Your task to perform on an android device: Go to Yahoo.com Image 0: 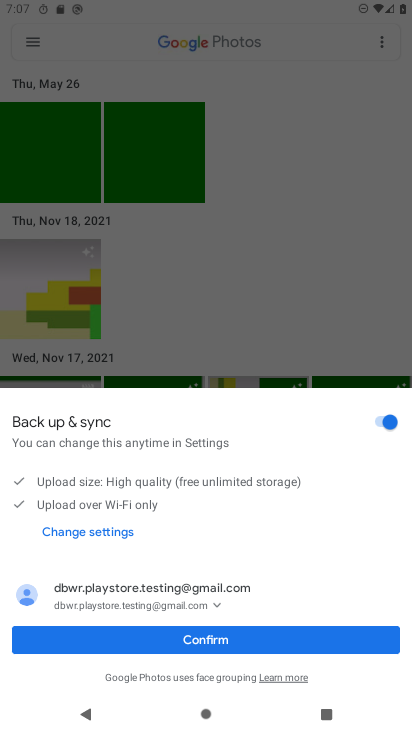
Step 0: drag from (179, 644) to (257, 344)
Your task to perform on an android device: Go to Yahoo.com Image 1: 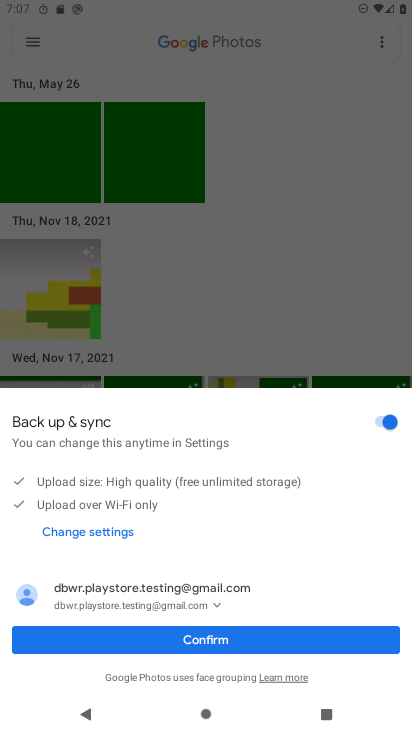
Step 1: press home button
Your task to perform on an android device: Go to Yahoo.com Image 2: 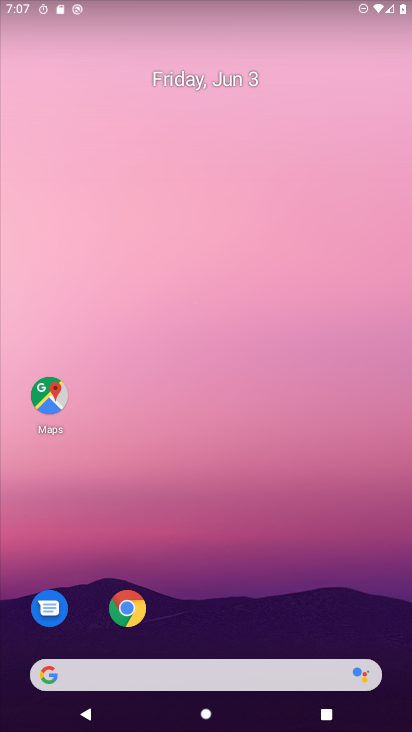
Step 2: click (135, 605)
Your task to perform on an android device: Go to Yahoo.com Image 3: 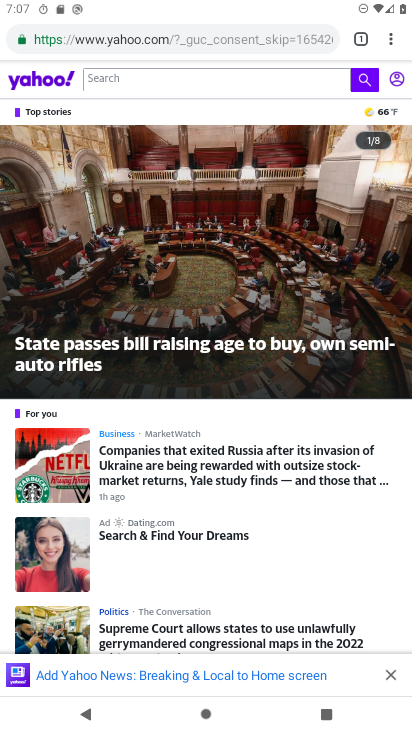
Step 3: task complete